Your task to perform on an android device: empty trash in the gmail app Image 0: 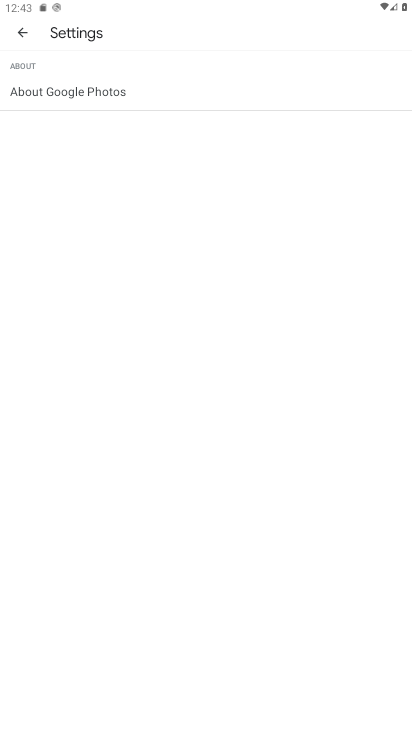
Step 0: click (21, 30)
Your task to perform on an android device: empty trash in the gmail app Image 1: 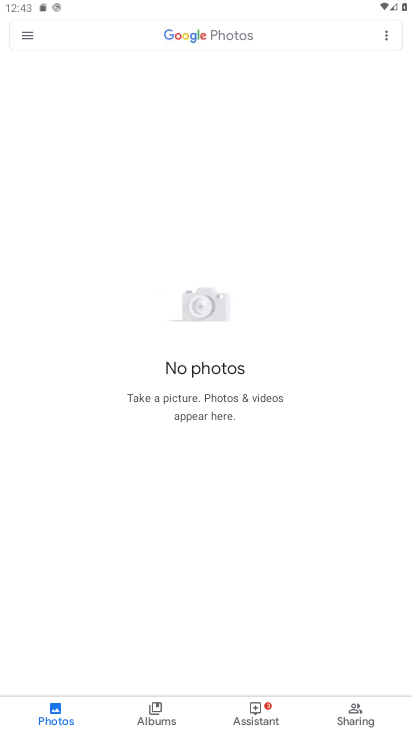
Step 1: press back button
Your task to perform on an android device: empty trash in the gmail app Image 2: 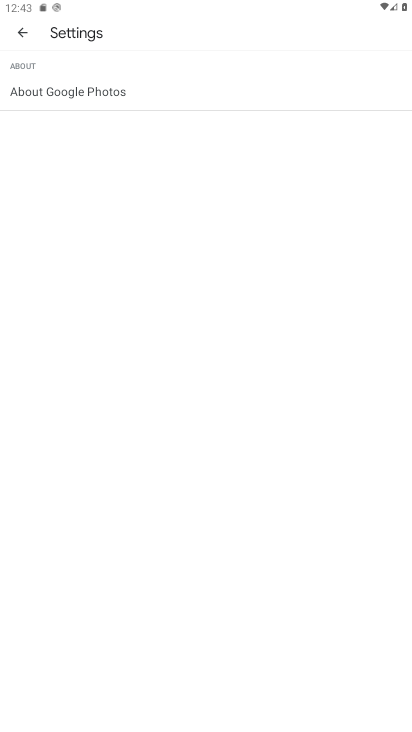
Step 2: click (16, 38)
Your task to perform on an android device: empty trash in the gmail app Image 3: 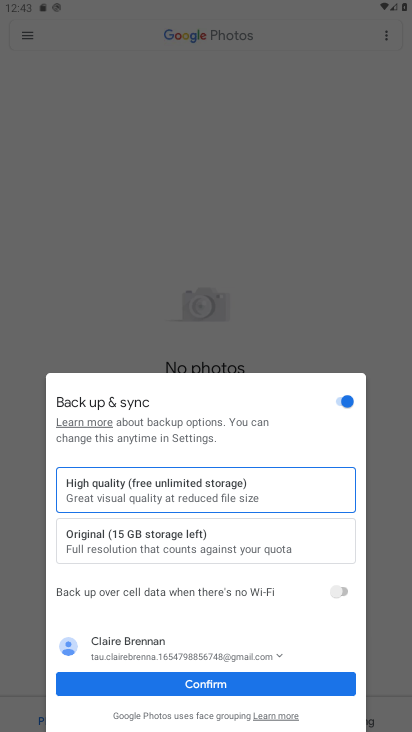
Step 3: click (165, 214)
Your task to perform on an android device: empty trash in the gmail app Image 4: 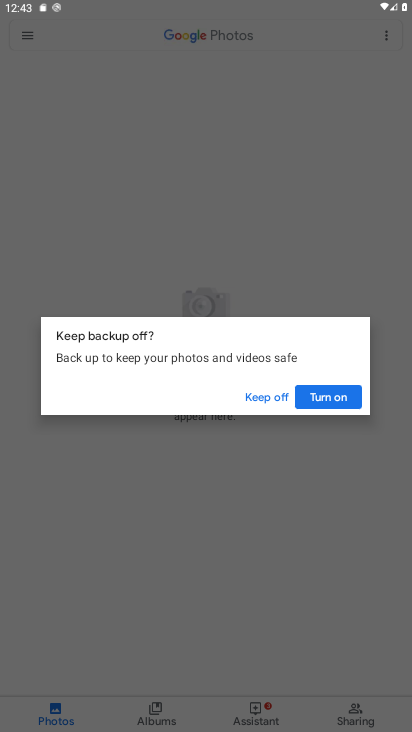
Step 4: click (246, 388)
Your task to perform on an android device: empty trash in the gmail app Image 5: 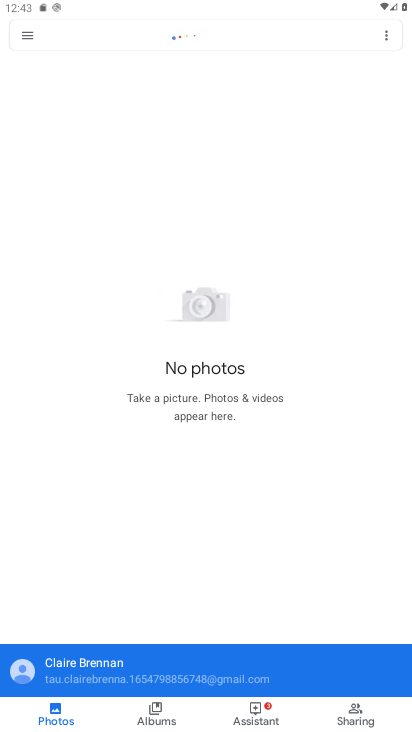
Step 5: press back button
Your task to perform on an android device: empty trash in the gmail app Image 6: 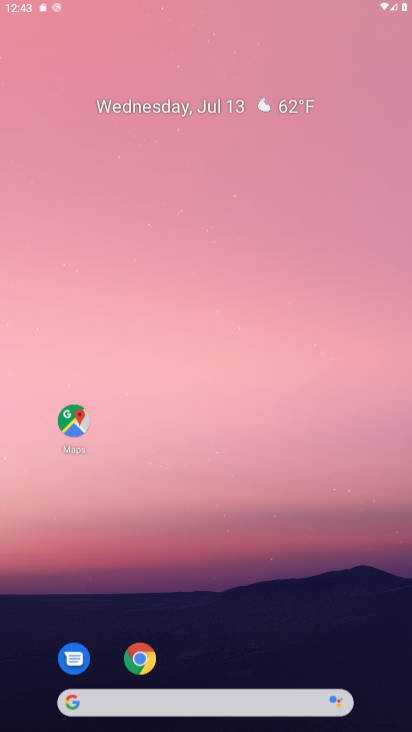
Step 6: press back button
Your task to perform on an android device: empty trash in the gmail app Image 7: 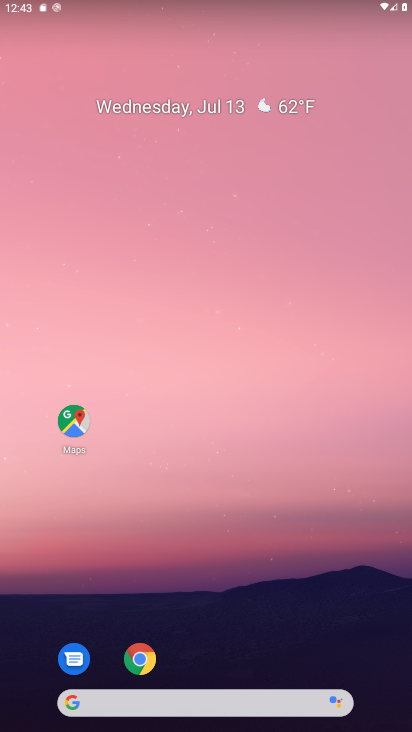
Step 7: drag from (231, 641) to (181, 70)
Your task to perform on an android device: empty trash in the gmail app Image 8: 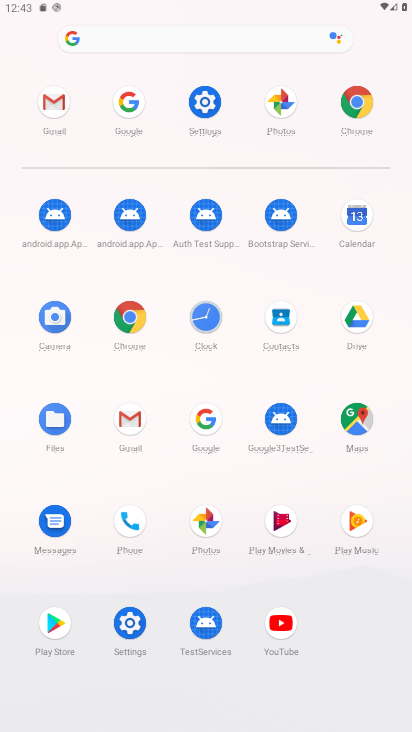
Step 8: click (124, 421)
Your task to perform on an android device: empty trash in the gmail app Image 9: 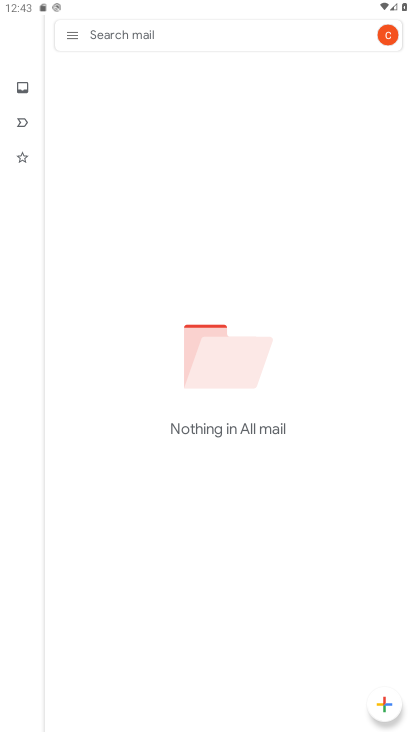
Step 9: click (125, 417)
Your task to perform on an android device: empty trash in the gmail app Image 10: 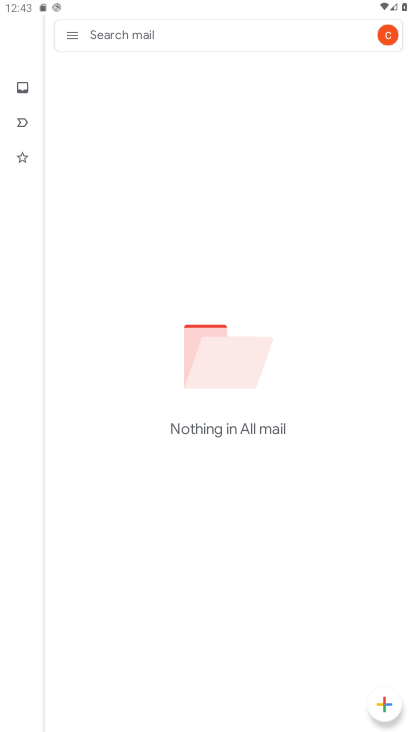
Step 10: click (123, 417)
Your task to perform on an android device: empty trash in the gmail app Image 11: 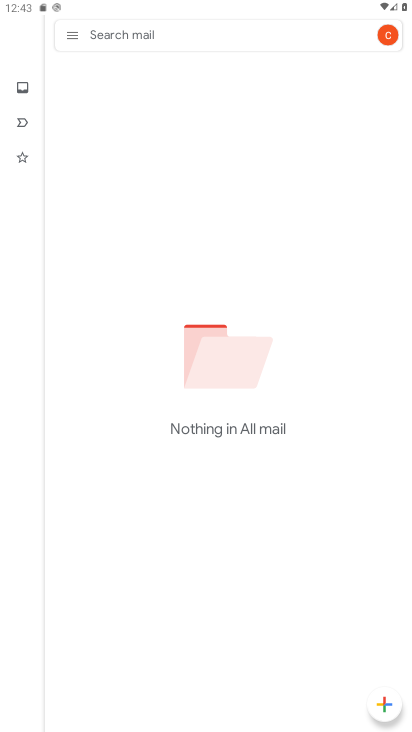
Step 11: task complete